Your task to perform on an android device: Search for razer nari on bestbuy.com, select the first entry, and add it to the cart. Image 0: 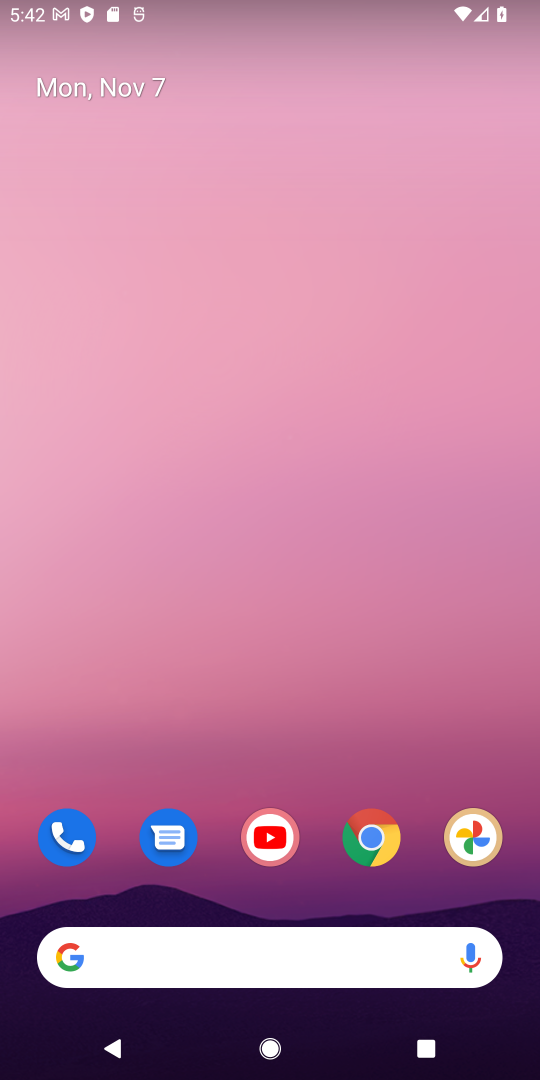
Step 0: click (383, 824)
Your task to perform on an android device: Search for razer nari on bestbuy.com, select the first entry, and add it to the cart. Image 1: 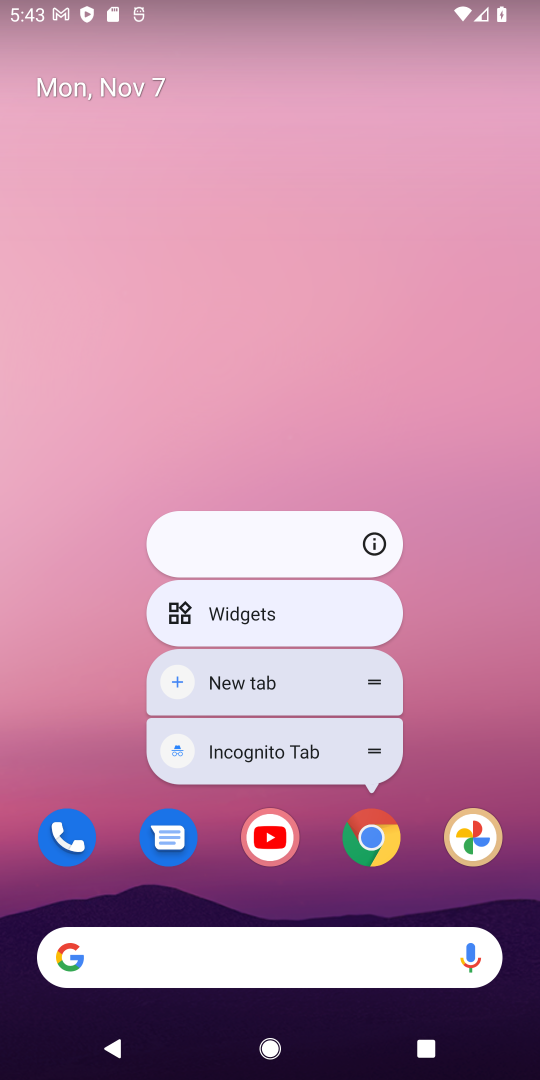
Step 1: click (381, 834)
Your task to perform on an android device: Search for razer nari on bestbuy.com, select the first entry, and add it to the cart. Image 2: 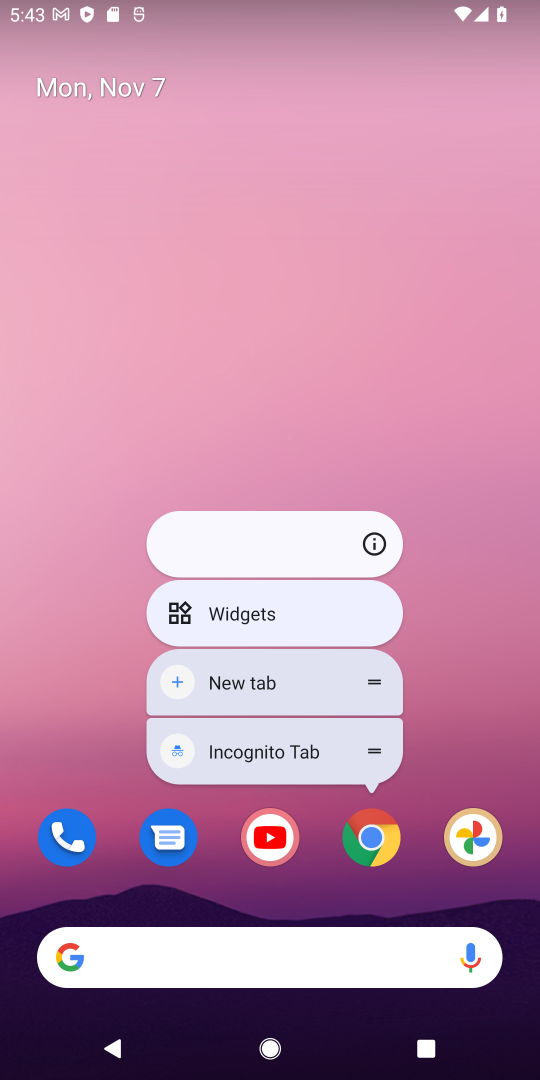
Step 2: click (398, 827)
Your task to perform on an android device: Search for razer nari on bestbuy.com, select the first entry, and add it to the cart. Image 3: 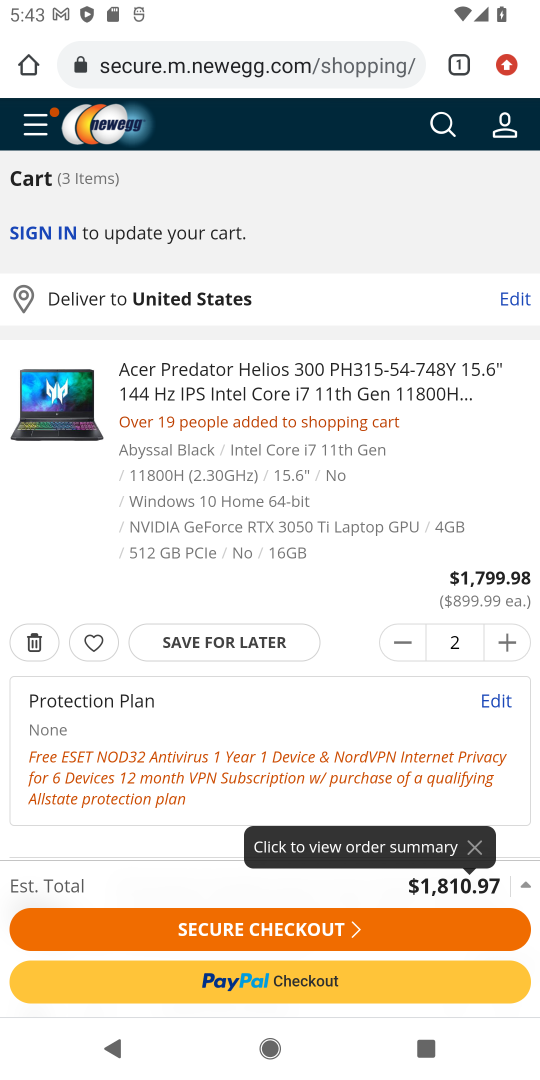
Step 3: click (263, 74)
Your task to perform on an android device: Search for razer nari on bestbuy.com, select the first entry, and add it to the cart. Image 4: 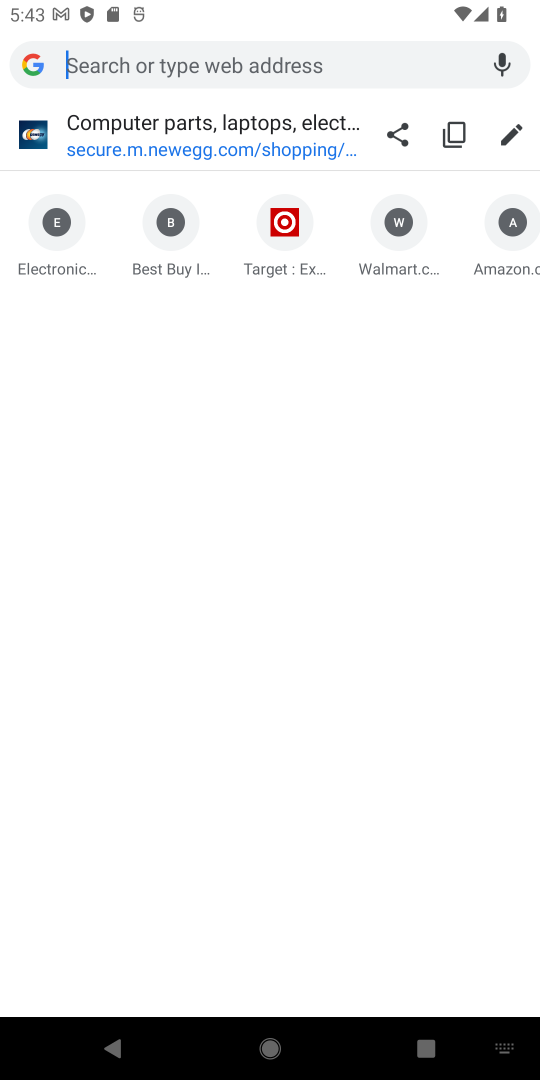
Step 4: type "bestbuy"
Your task to perform on an android device: Search for razer nari on bestbuy.com, select the first entry, and add it to the cart. Image 5: 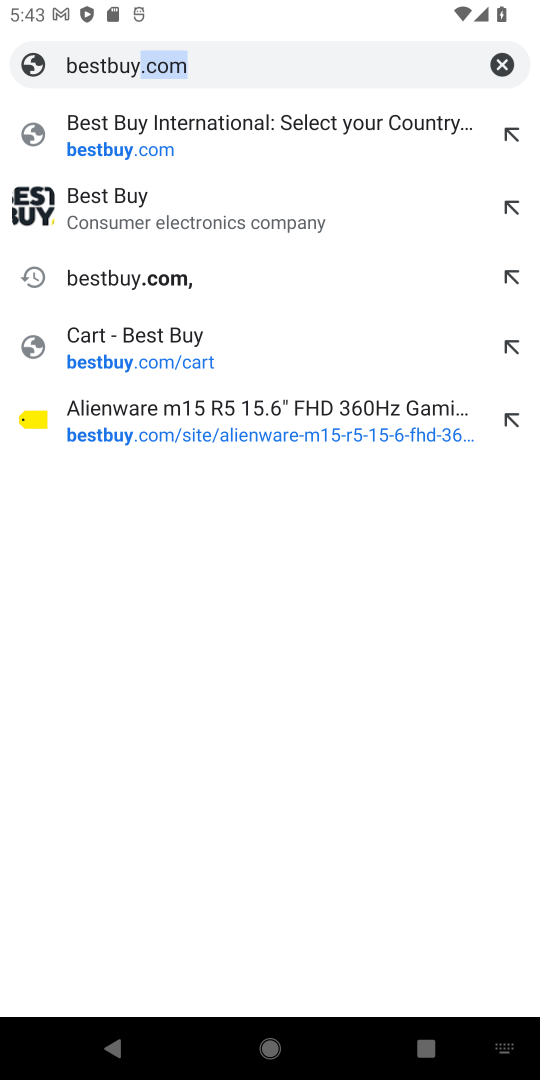
Step 5: click (127, 148)
Your task to perform on an android device: Search for razer nari on bestbuy.com, select the first entry, and add it to the cart. Image 6: 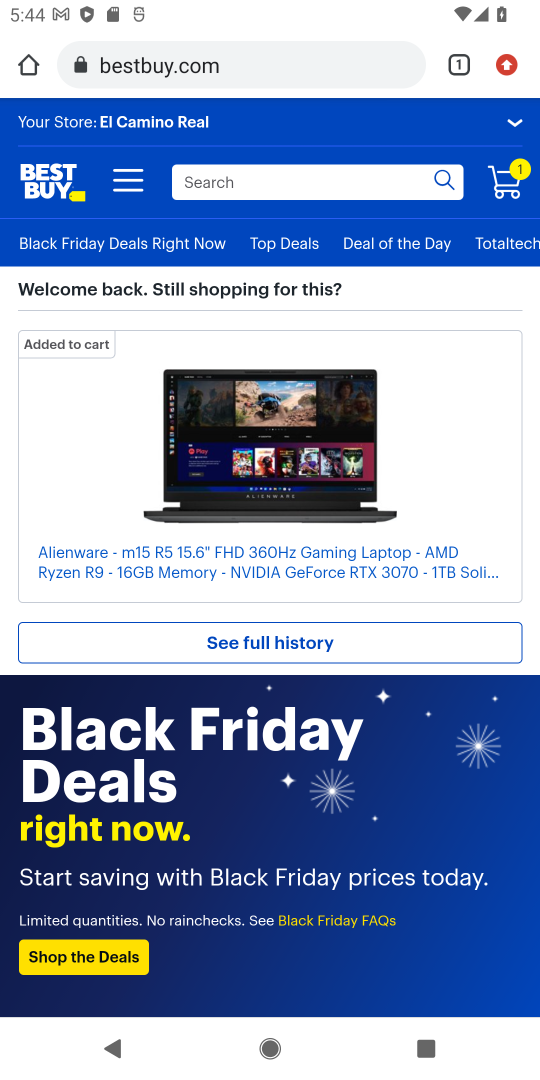
Step 6: click (270, 174)
Your task to perform on an android device: Search for razer nari on bestbuy.com, select the first entry, and add it to the cart. Image 7: 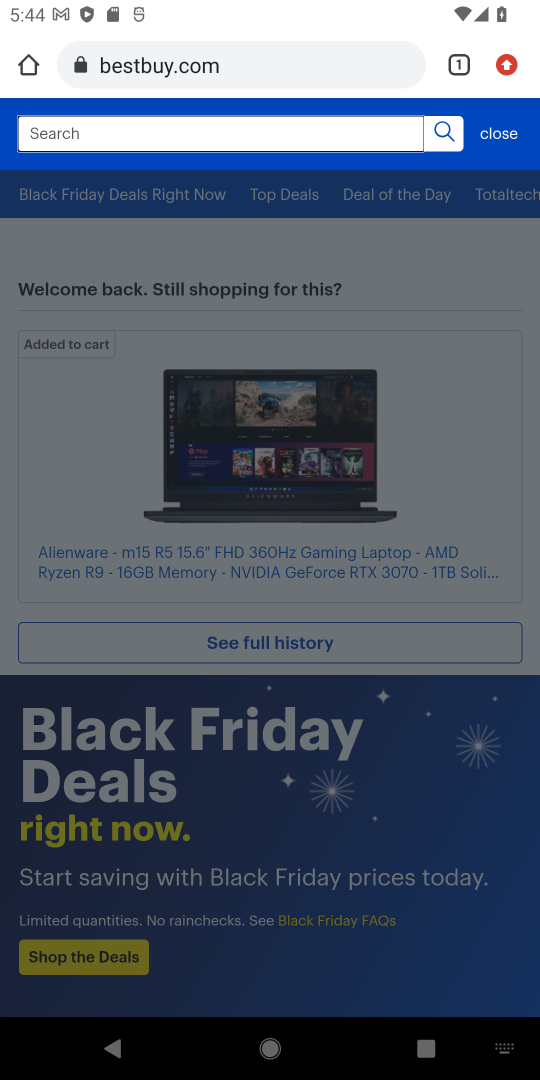
Step 7: type "razer nari"
Your task to perform on an android device: Search for razer nari on bestbuy.com, select the first entry, and add it to the cart. Image 8: 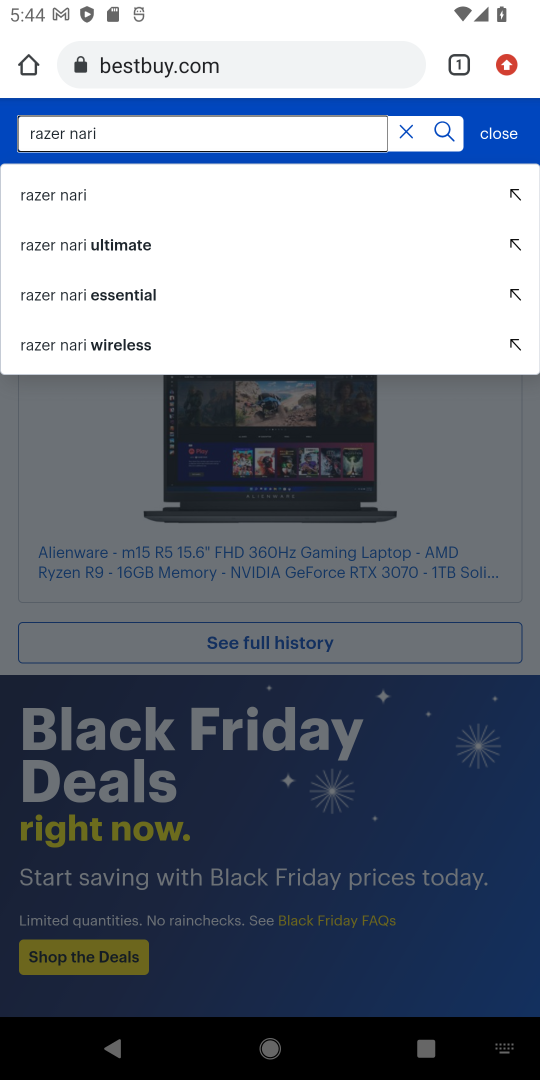
Step 8: press enter
Your task to perform on an android device: Search for razer nari on bestbuy.com, select the first entry, and add it to the cart. Image 9: 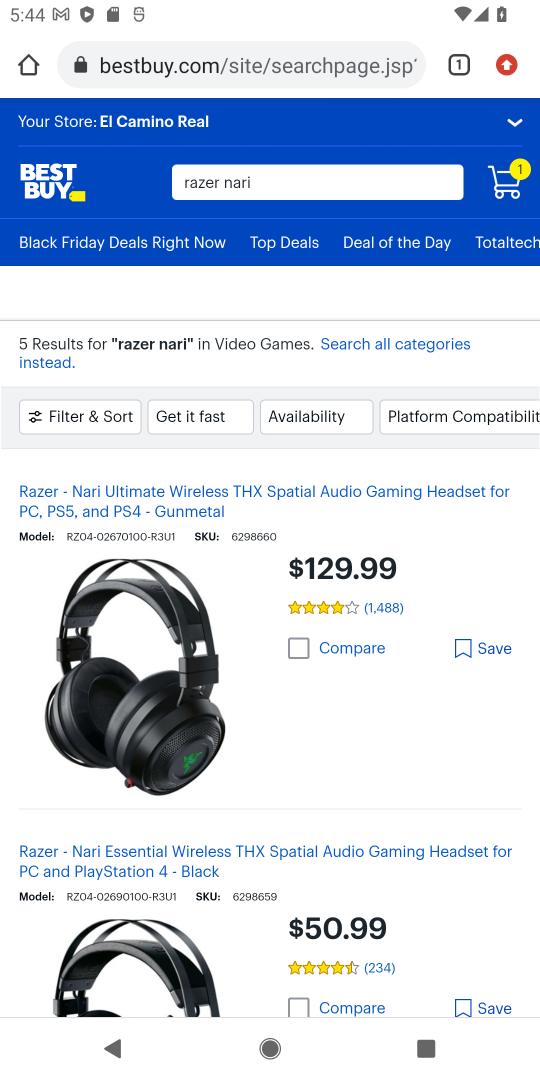
Step 9: click (150, 663)
Your task to perform on an android device: Search for razer nari on bestbuy.com, select the first entry, and add it to the cart. Image 10: 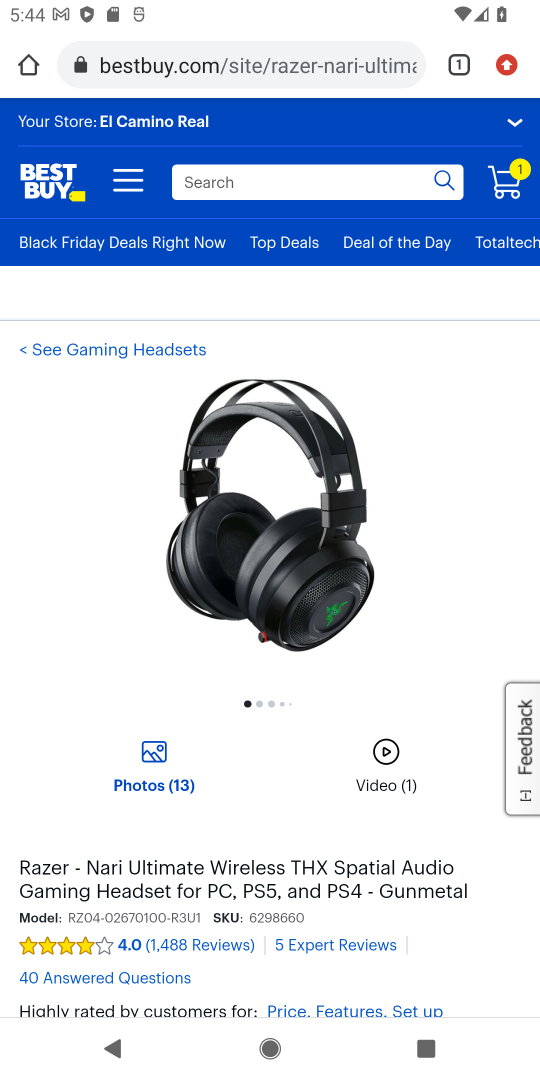
Step 10: drag from (312, 911) to (253, 274)
Your task to perform on an android device: Search for razer nari on bestbuy.com, select the first entry, and add it to the cart. Image 11: 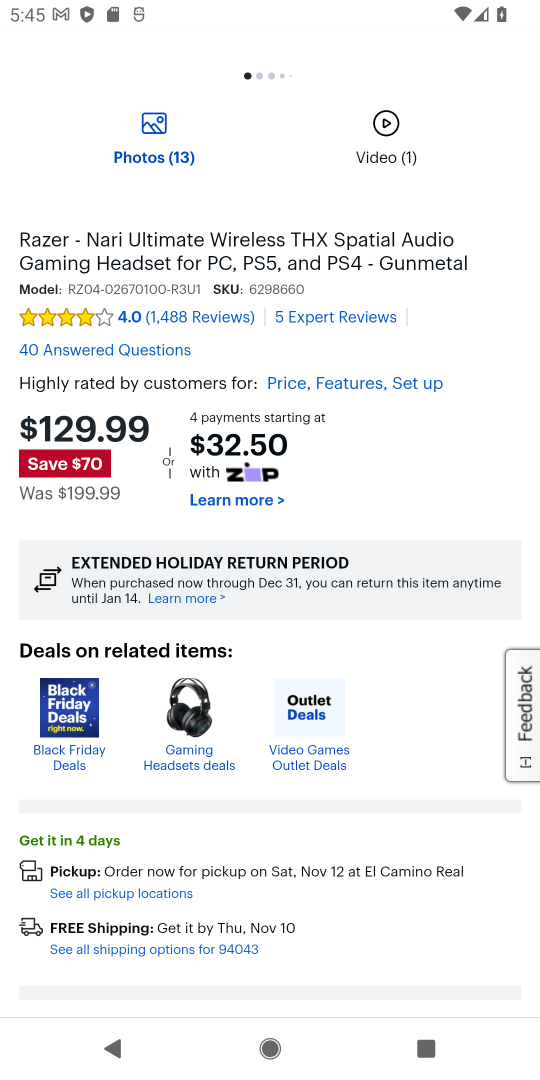
Step 11: drag from (283, 862) to (192, 355)
Your task to perform on an android device: Search for razer nari on bestbuy.com, select the first entry, and add it to the cart. Image 12: 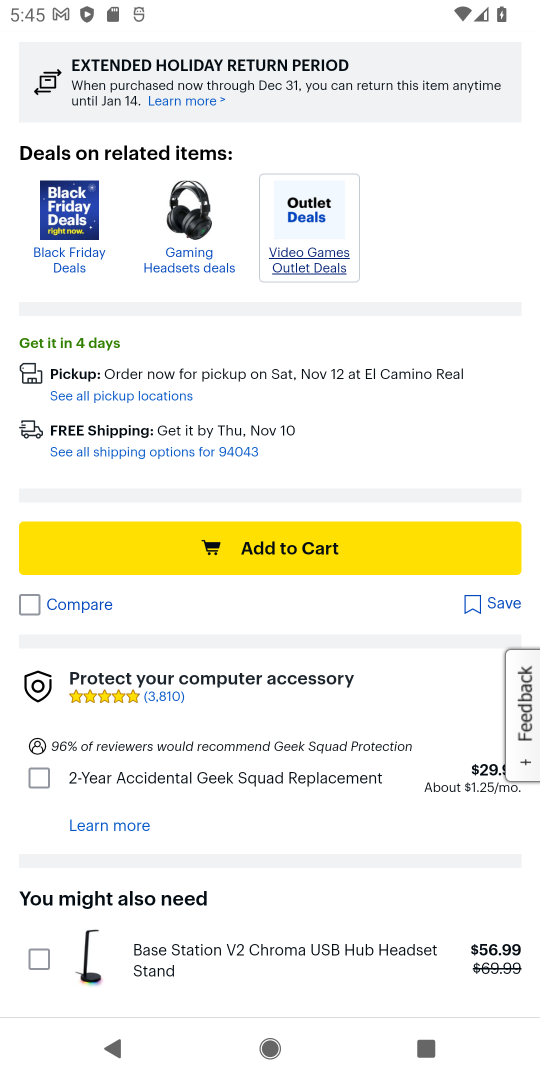
Step 12: click (310, 549)
Your task to perform on an android device: Search for razer nari on bestbuy.com, select the first entry, and add it to the cart. Image 13: 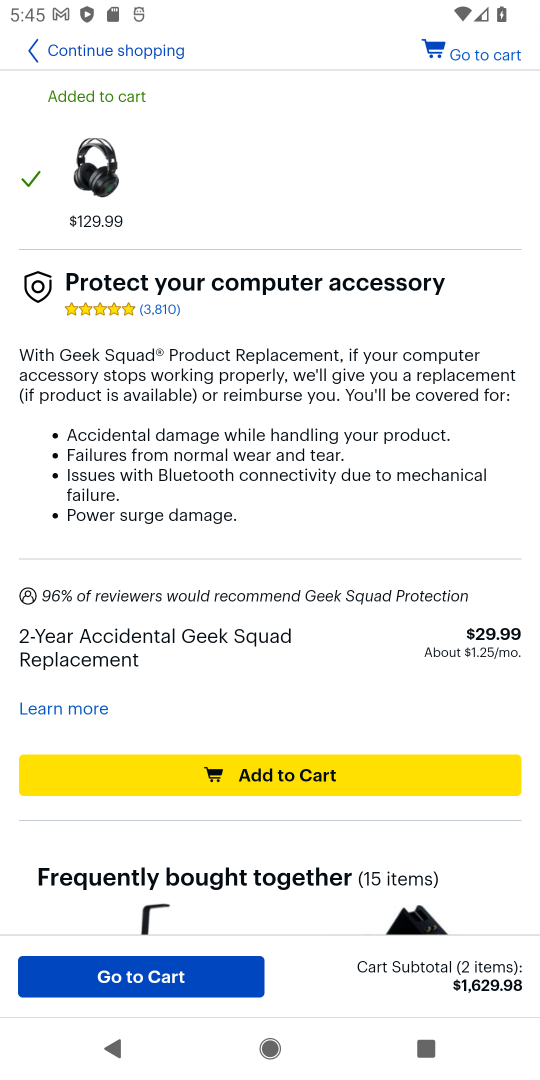
Step 13: click (350, 762)
Your task to perform on an android device: Search for razer nari on bestbuy.com, select the first entry, and add it to the cart. Image 14: 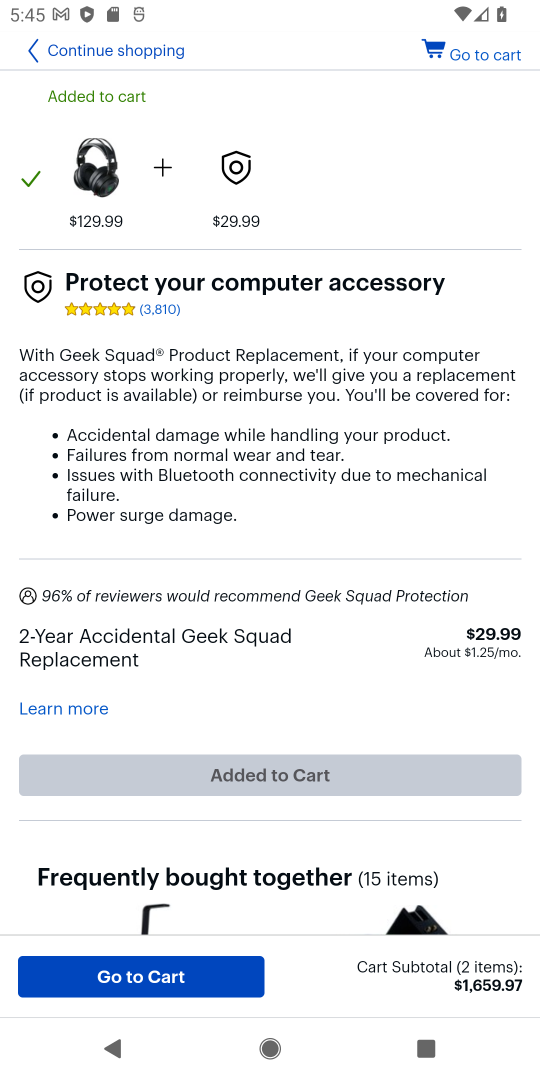
Step 14: click (459, 47)
Your task to perform on an android device: Search for razer nari on bestbuy.com, select the first entry, and add it to the cart. Image 15: 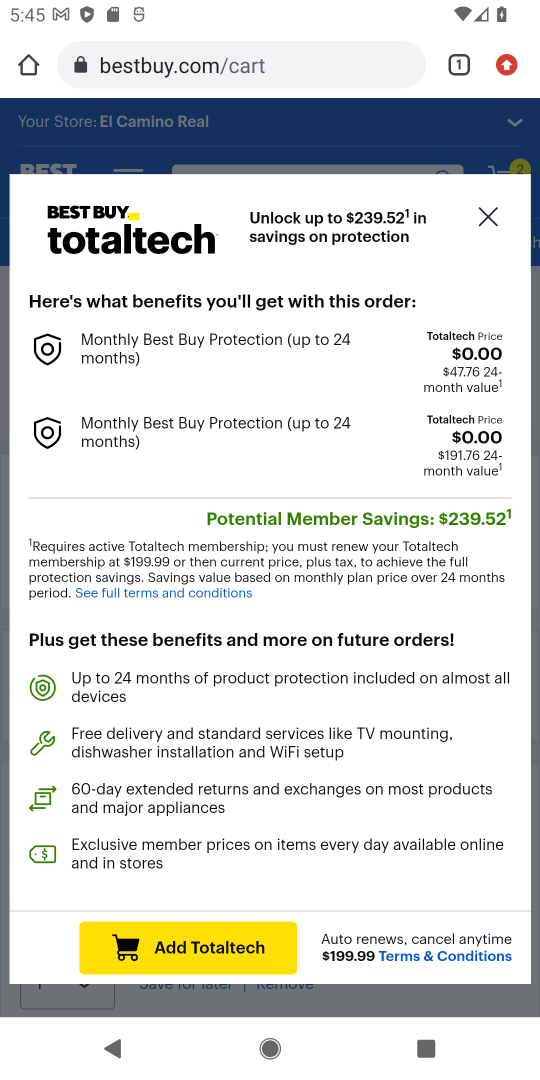
Step 15: click (490, 211)
Your task to perform on an android device: Search for razer nari on bestbuy.com, select the first entry, and add it to the cart. Image 16: 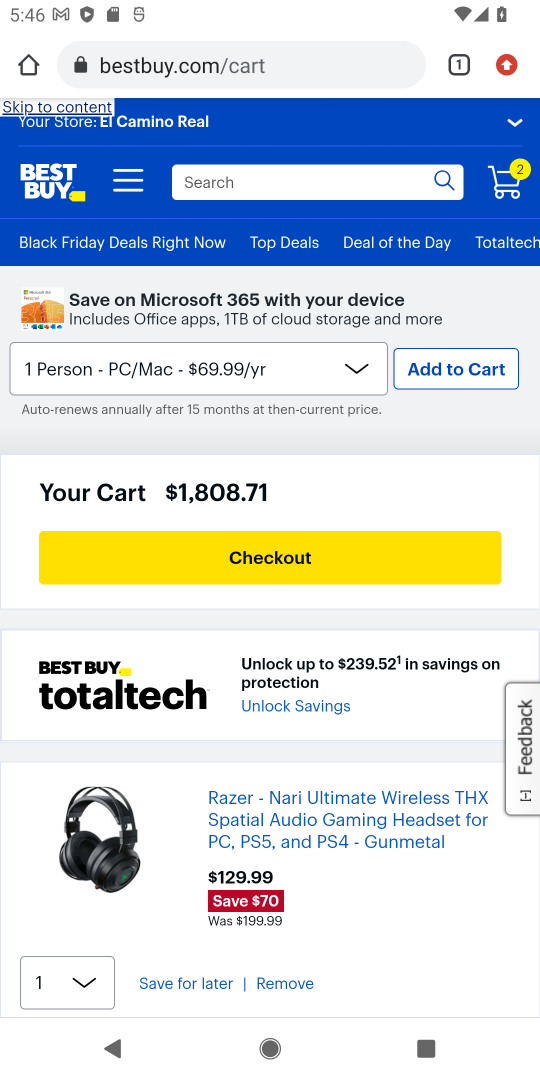
Step 16: task complete